Your task to perform on an android device: change your default location settings in chrome Image 0: 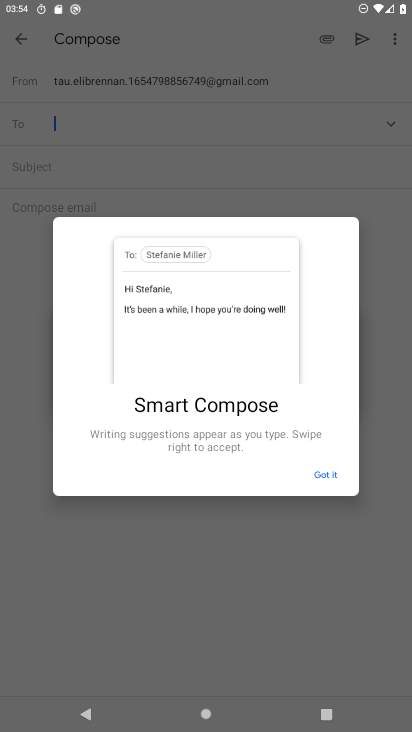
Step 0: press home button
Your task to perform on an android device: change your default location settings in chrome Image 1: 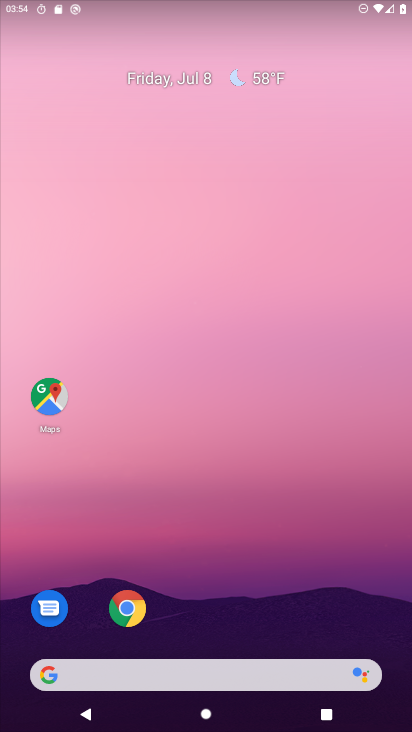
Step 1: click (122, 606)
Your task to perform on an android device: change your default location settings in chrome Image 2: 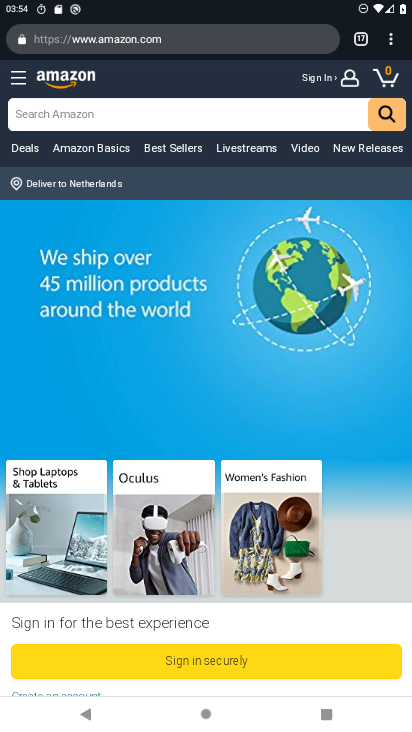
Step 2: click (391, 46)
Your task to perform on an android device: change your default location settings in chrome Image 3: 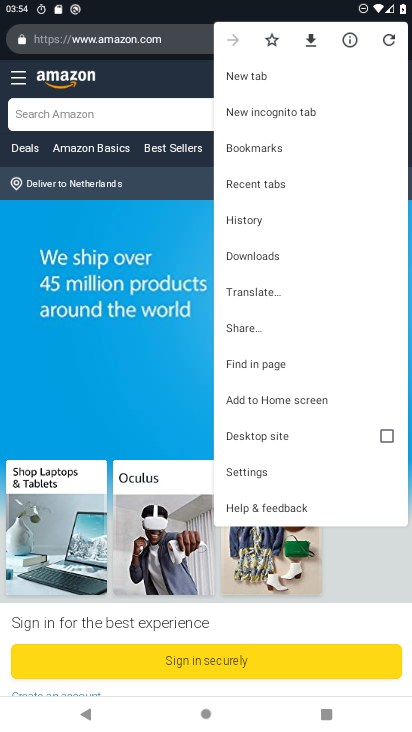
Step 3: click (247, 468)
Your task to perform on an android device: change your default location settings in chrome Image 4: 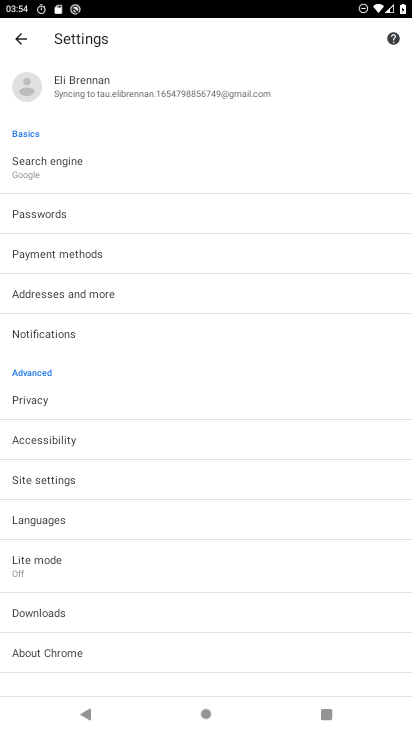
Step 4: click (43, 479)
Your task to perform on an android device: change your default location settings in chrome Image 5: 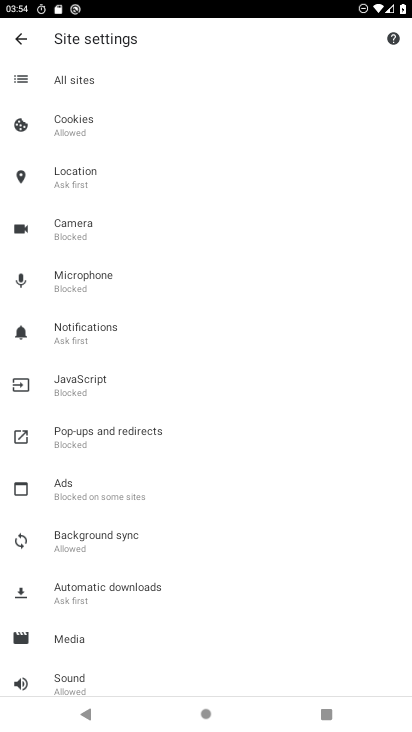
Step 5: click (71, 175)
Your task to perform on an android device: change your default location settings in chrome Image 6: 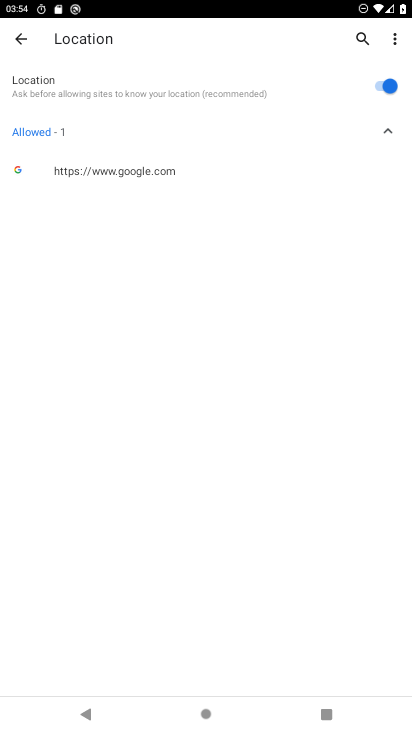
Step 6: click (381, 81)
Your task to perform on an android device: change your default location settings in chrome Image 7: 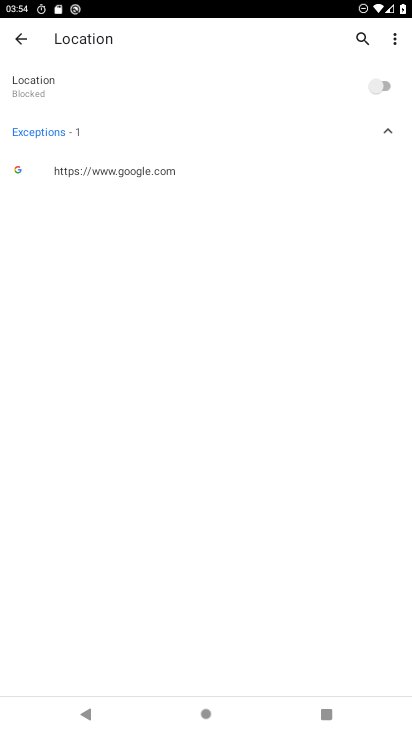
Step 7: task complete